Your task to perform on an android device: Show me popular videos on Youtube Image 0: 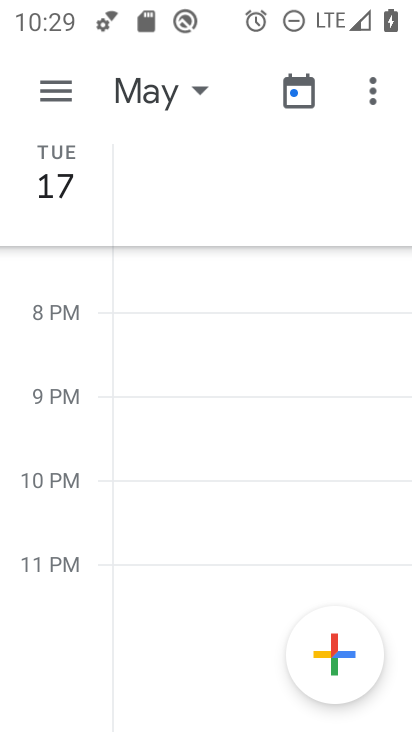
Step 0: press home button
Your task to perform on an android device: Show me popular videos on Youtube Image 1: 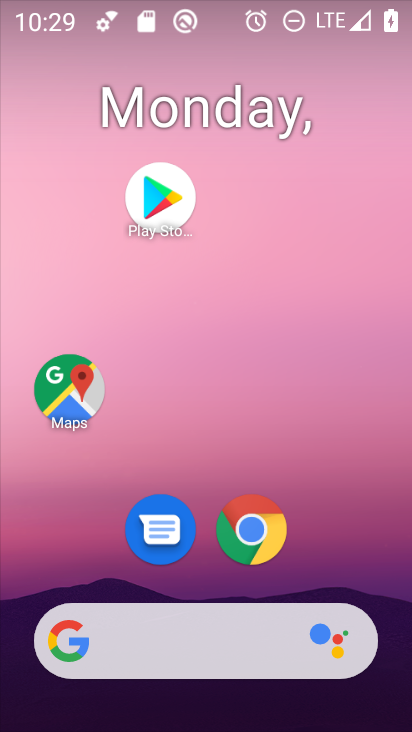
Step 1: drag from (322, 522) to (252, 107)
Your task to perform on an android device: Show me popular videos on Youtube Image 2: 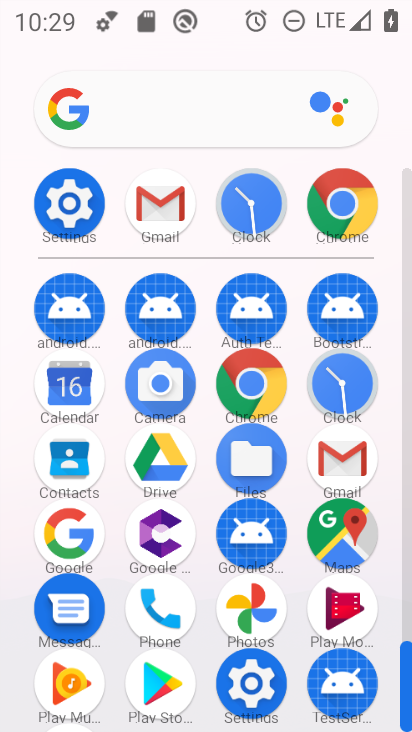
Step 2: drag from (206, 651) to (171, 280)
Your task to perform on an android device: Show me popular videos on Youtube Image 3: 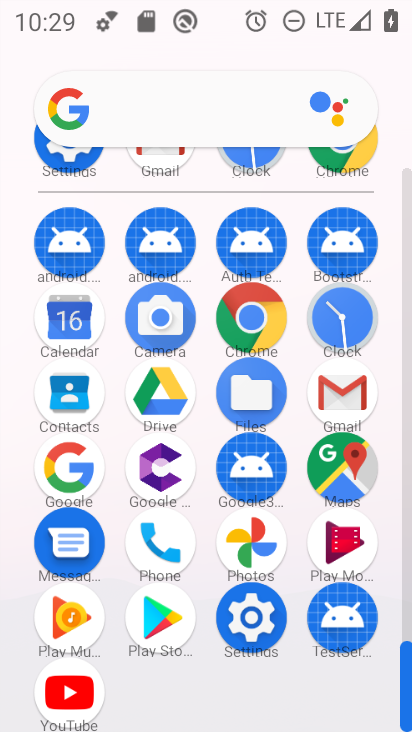
Step 3: click (63, 692)
Your task to perform on an android device: Show me popular videos on Youtube Image 4: 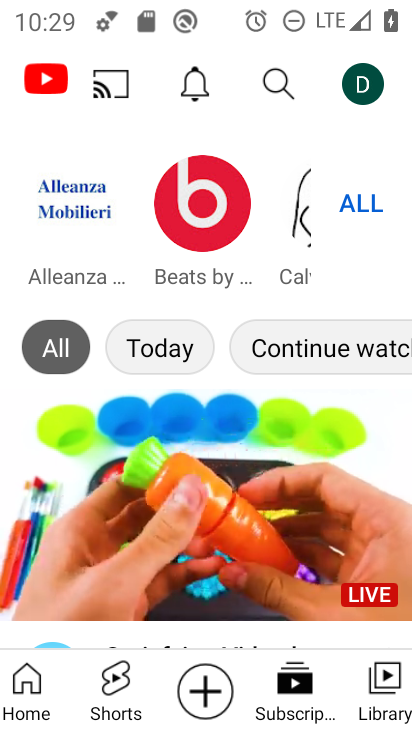
Step 4: click (107, 693)
Your task to perform on an android device: Show me popular videos on Youtube Image 5: 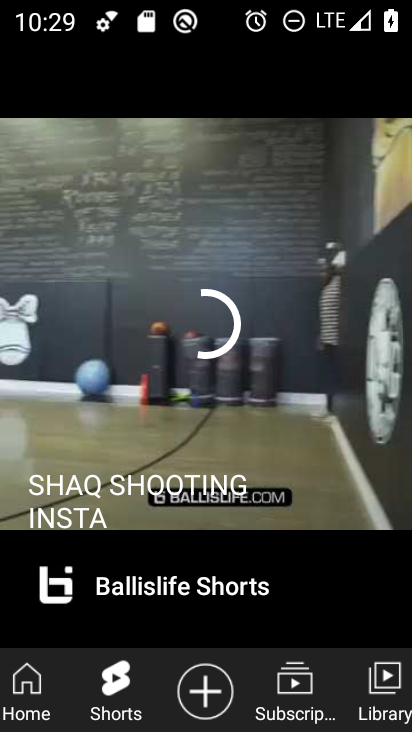
Step 5: task complete